Your task to perform on an android device: Go to Maps Image 0: 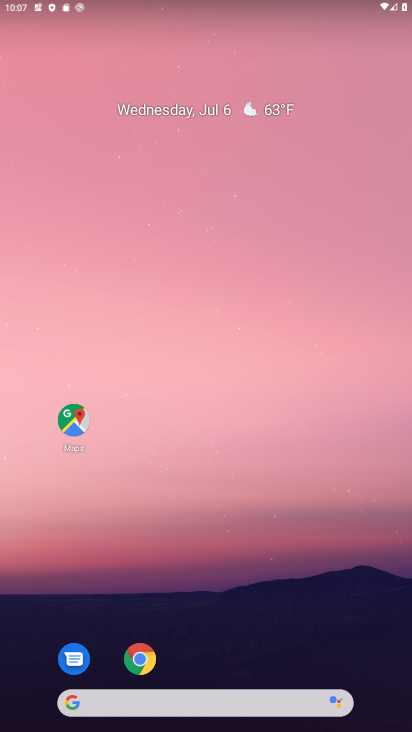
Step 0: drag from (231, 658) to (303, 200)
Your task to perform on an android device: Go to Maps Image 1: 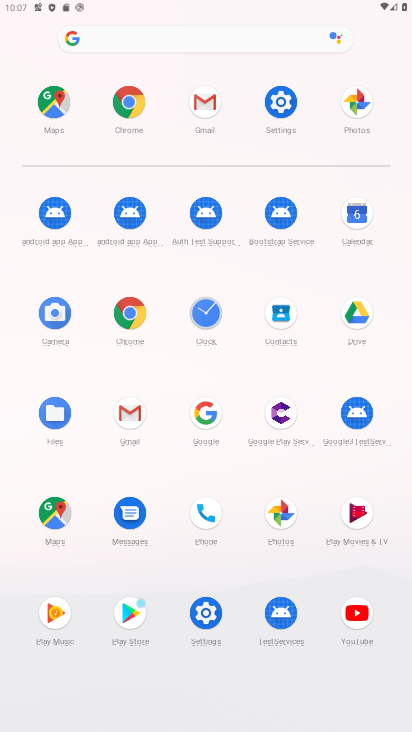
Step 1: click (49, 511)
Your task to perform on an android device: Go to Maps Image 2: 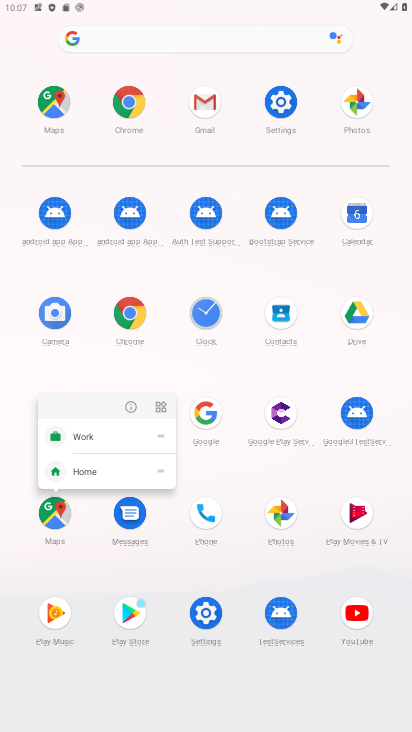
Step 2: click (131, 404)
Your task to perform on an android device: Go to Maps Image 3: 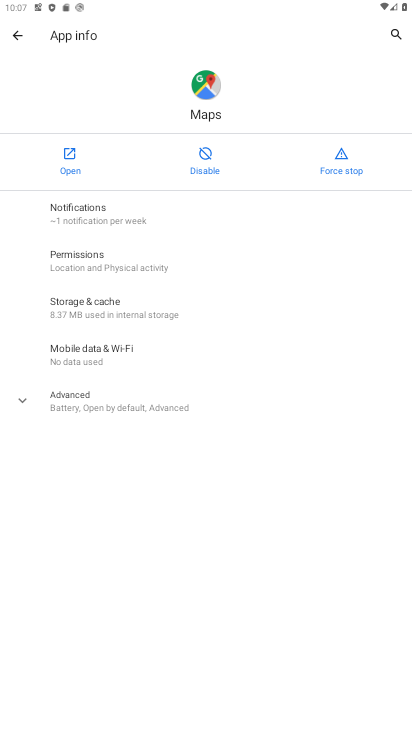
Step 3: click (73, 171)
Your task to perform on an android device: Go to Maps Image 4: 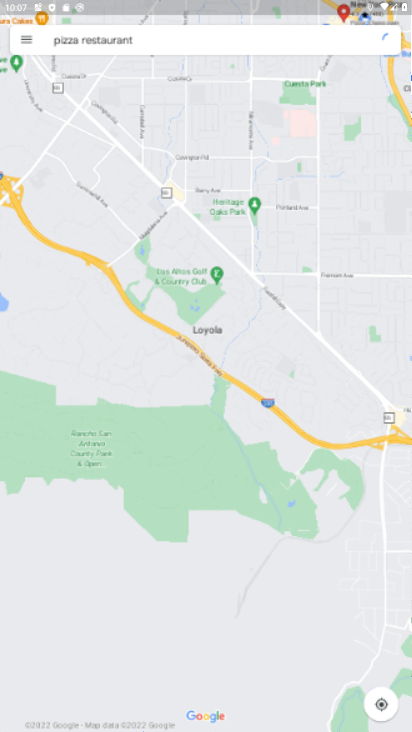
Step 4: task complete